Your task to perform on an android device: change the clock display to show seconds Image 0: 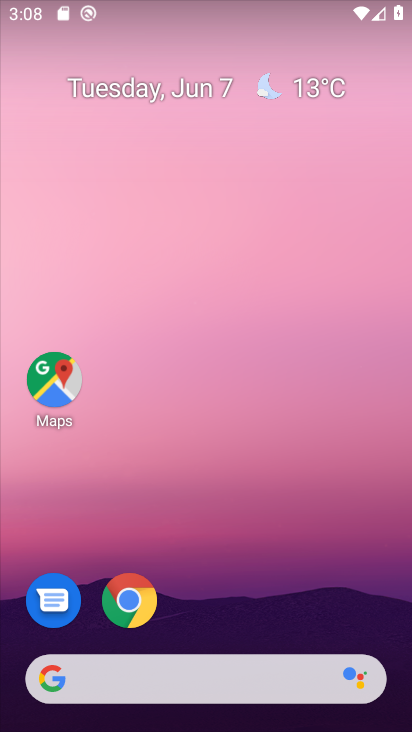
Step 0: drag from (314, 586) to (313, 121)
Your task to perform on an android device: change the clock display to show seconds Image 1: 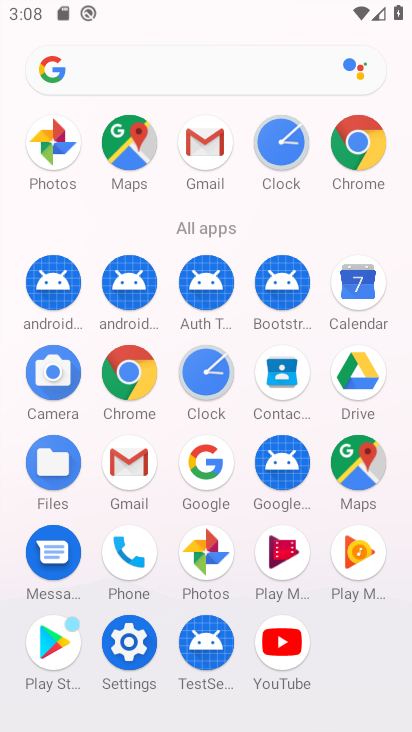
Step 1: click (205, 377)
Your task to perform on an android device: change the clock display to show seconds Image 2: 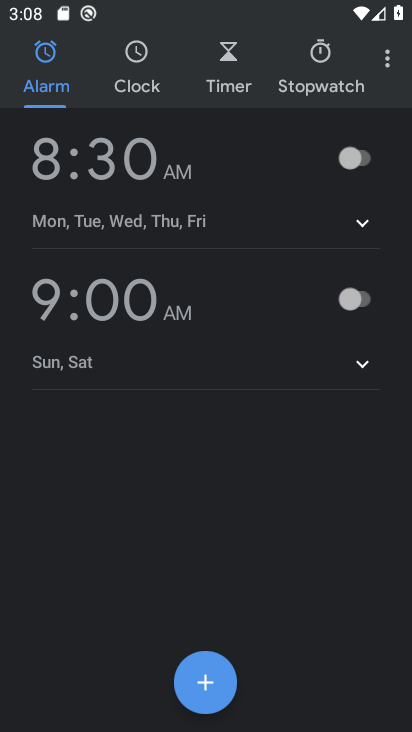
Step 2: click (385, 58)
Your task to perform on an android device: change the clock display to show seconds Image 3: 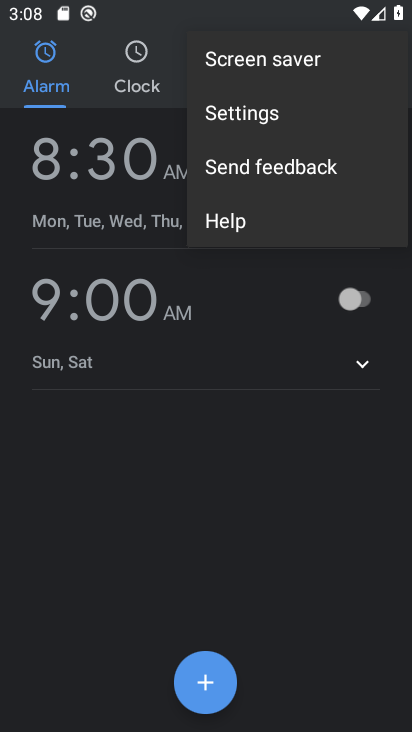
Step 3: click (237, 110)
Your task to perform on an android device: change the clock display to show seconds Image 4: 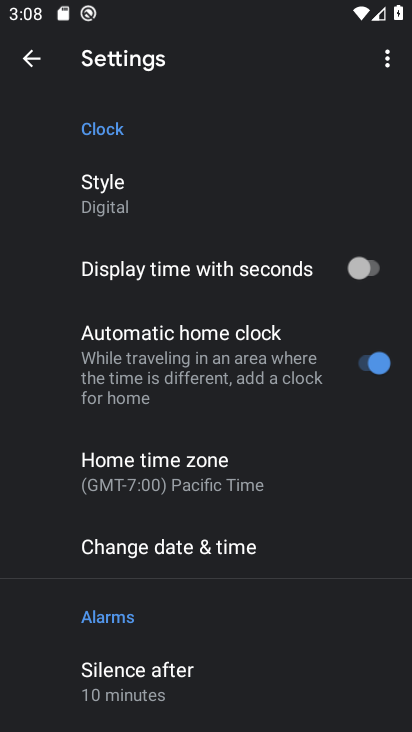
Step 4: click (374, 284)
Your task to perform on an android device: change the clock display to show seconds Image 5: 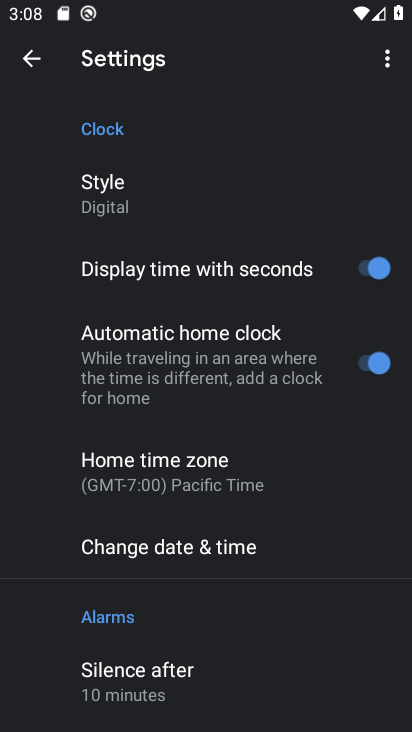
Step 5: task complete